Your task to perform on an android device: check android version Image 0: 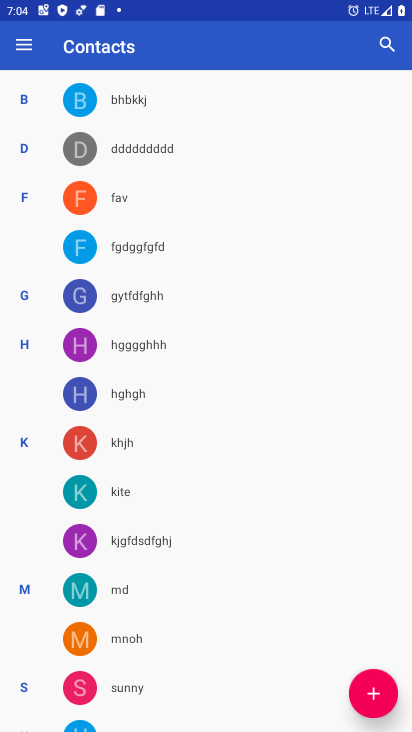
Step 0: press home button
Your task to perform on an android device: check android version Image 1: 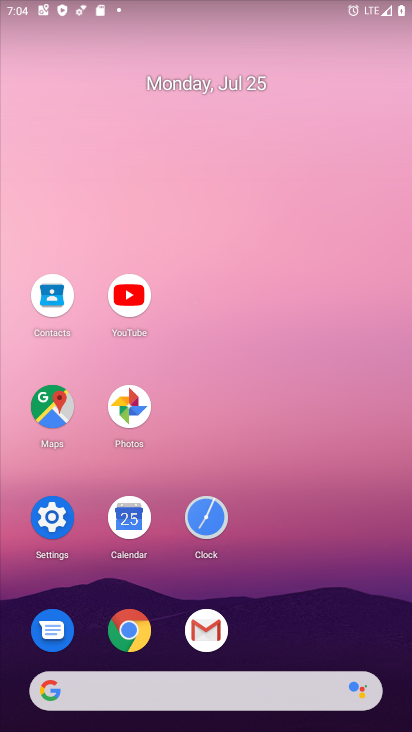
Step 1: click (52, 523)
Your task to perform on an android device: check android version Image 2: 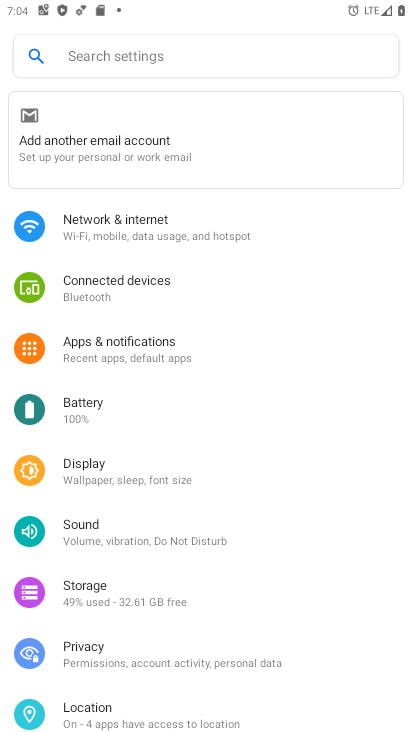
Step 2: drag from (316, 622) to (316, 158)
Your task to perform on an android device: check android version Image 3: 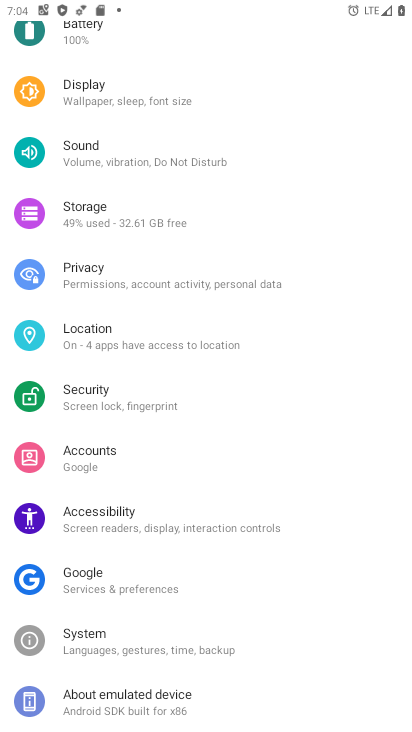
Step 3: click (121, 699)
Your task to perform on an android device: check android version Image 4: 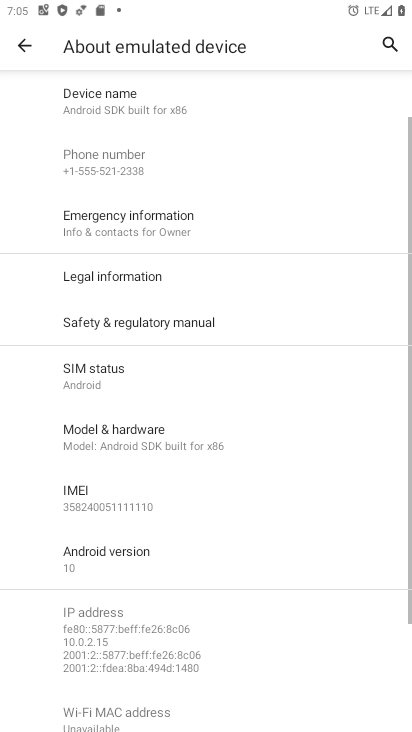
Step 4: task complete